Your task to perform on an android device: turn on javascript in the chrome app Image 0: 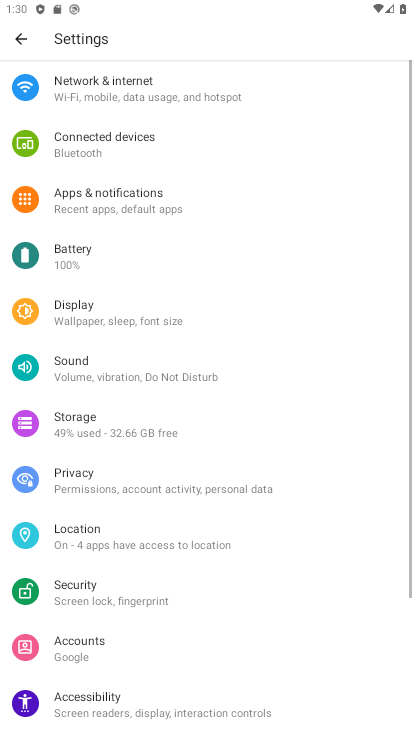
Step 0: press home button
Your task to perform on an android device: turn on javascript in the chrome app Image 1: 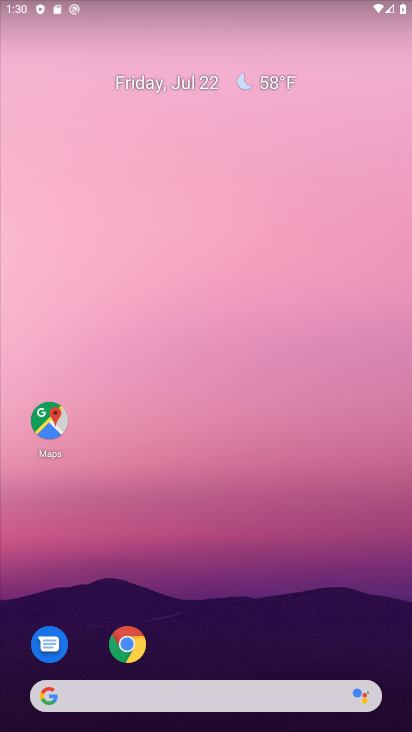
Step 1: click (125, 621)
Your task to perform on an android device: turn on javascript in the chrome app Image 2: 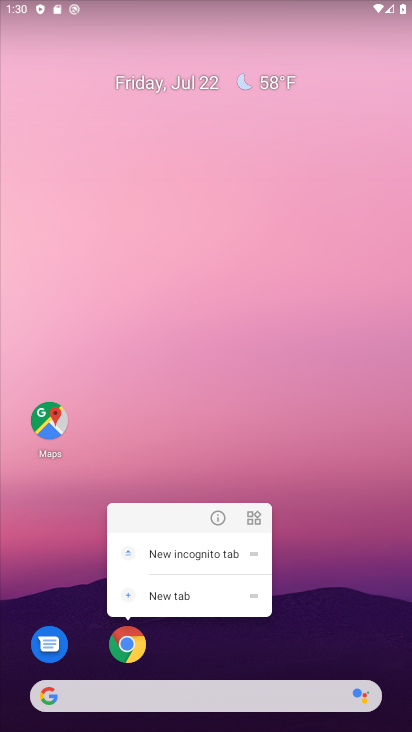
Step 2: click (125, 652)
Your task to perform on an android device: turn on javascript in the chrome app Image 3: 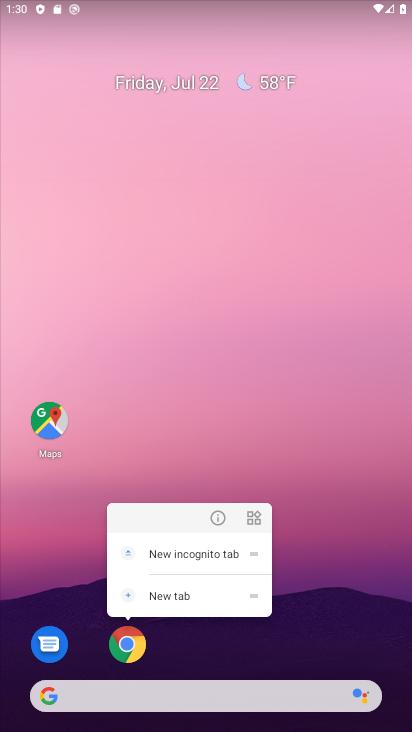
Step 3: click (125, 652)
Your task to perform on an android device: turn on javascript in the chrome app Image 4: 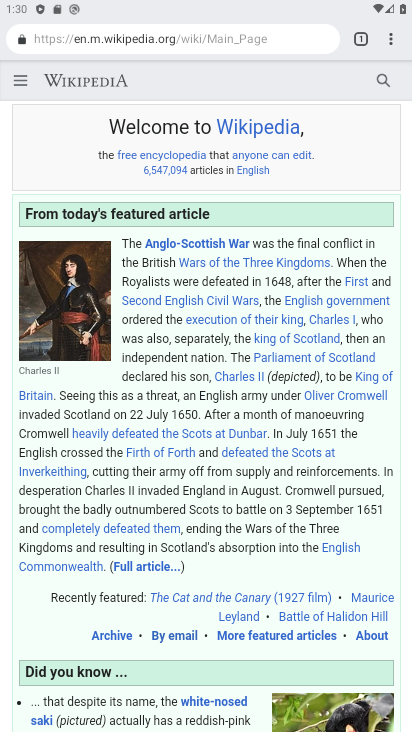
Step 4: click (386, 40)
Your task to perform on an android device: turn on javascript in the chrome app Image 5: 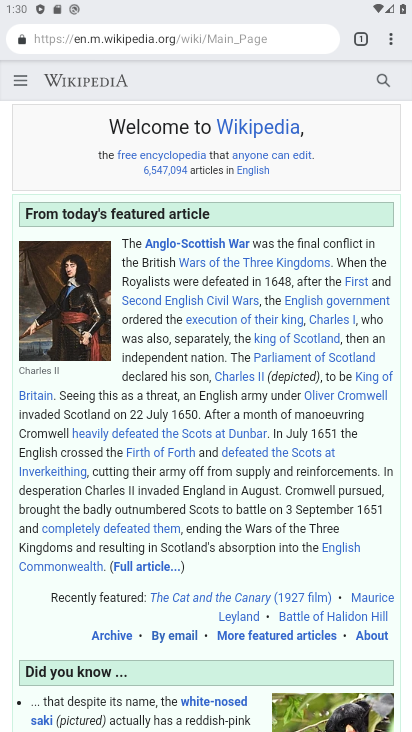
Step 5: click (383, 41)
Your task to perform on an android device: turn on javascript in the chrome app Image 6: 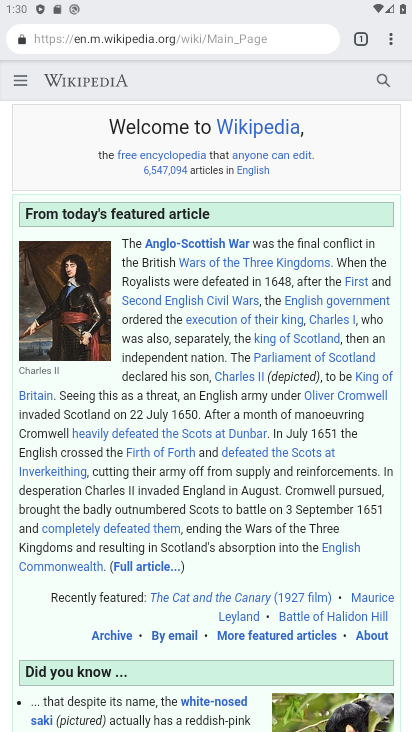
Step 6: click (384, 38)
Your task to perform on an android device: turn on javascript in the chrome app Image 7: 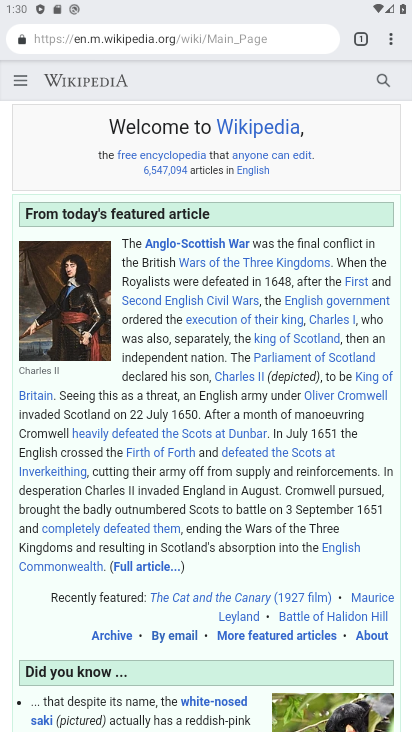
Step 7: click (389, 38)
Your task to perform on an android device: turn on javascript in the chrome app Image 8: 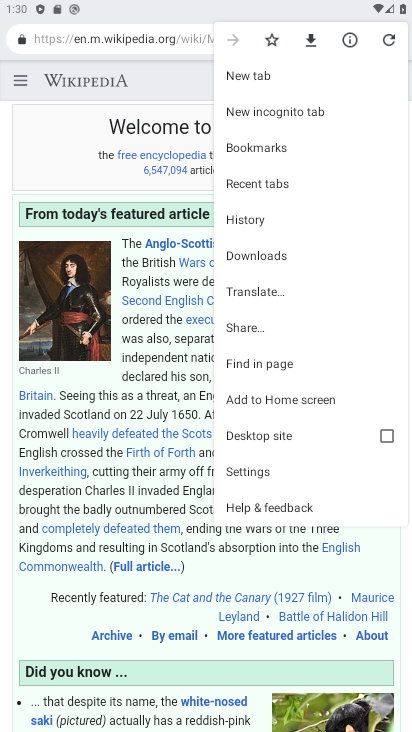
Step 8: click (243, 470)
Your task to perform on an android device: turn on javascript in the chrome app Image 9: 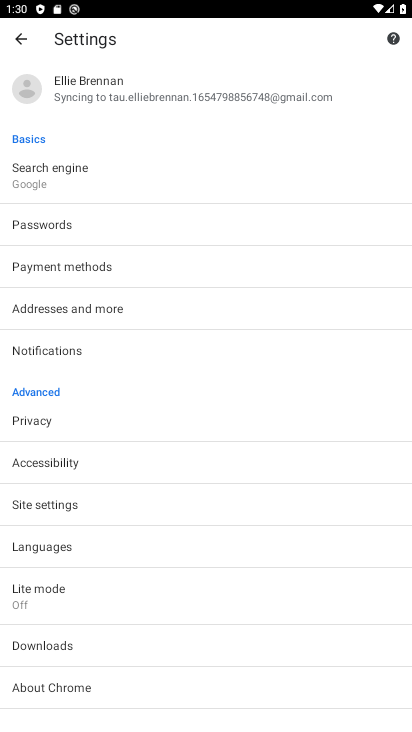
Step 9: click (65, 504)
Your task to perform on an android device: turn on javascript in the chrome app Image 10: 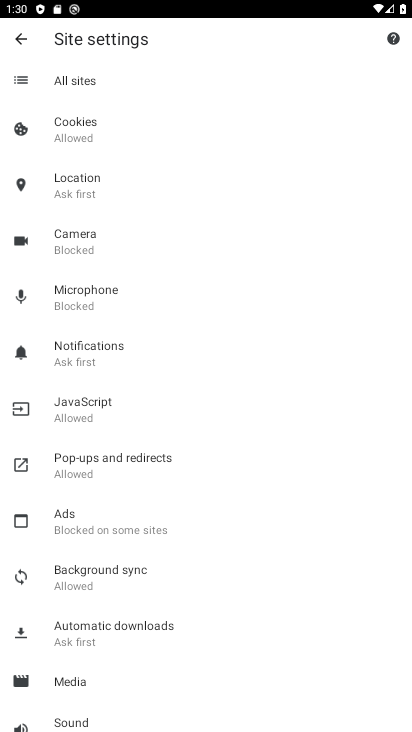
Step 10: click (70, 411)
Your task to perform on an android device: turn on javascript in the chrome app Image 11: 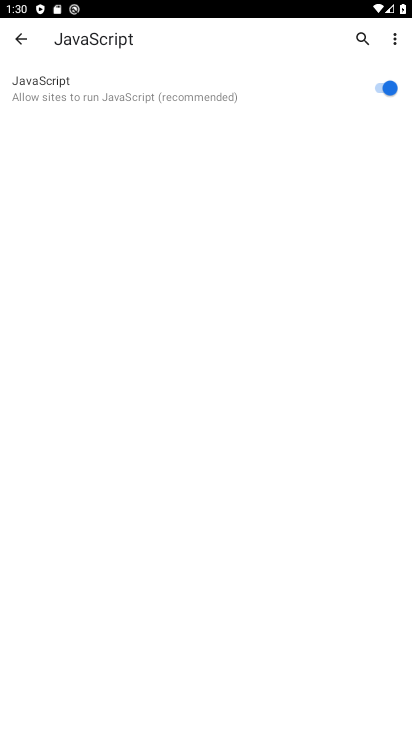
Step 11: task complete